Your task to perform on an android device: add a contact Image 0: 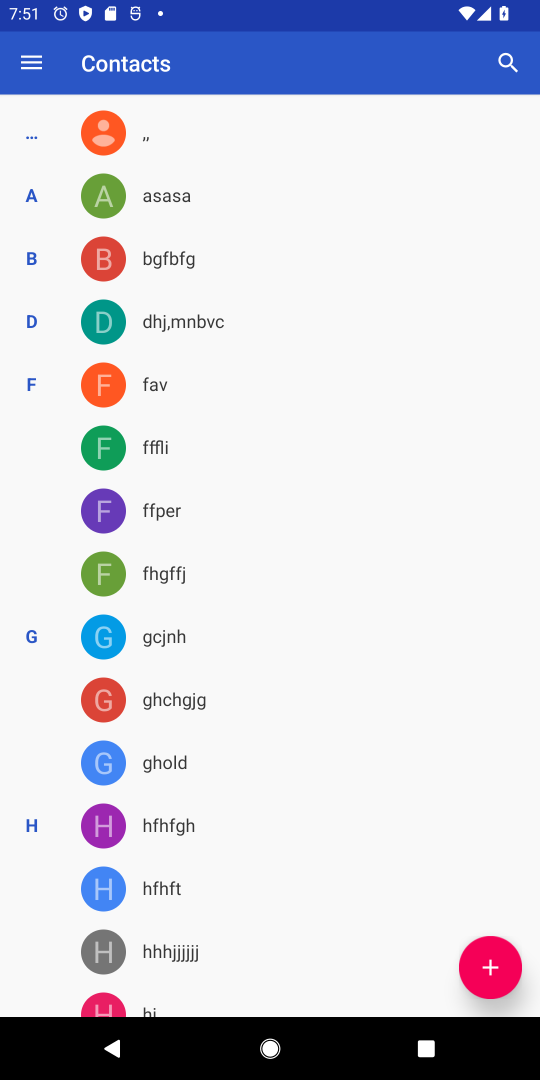
Step 0: click (482, 970)
Your task to perform on an android device: add a contact Image 1: 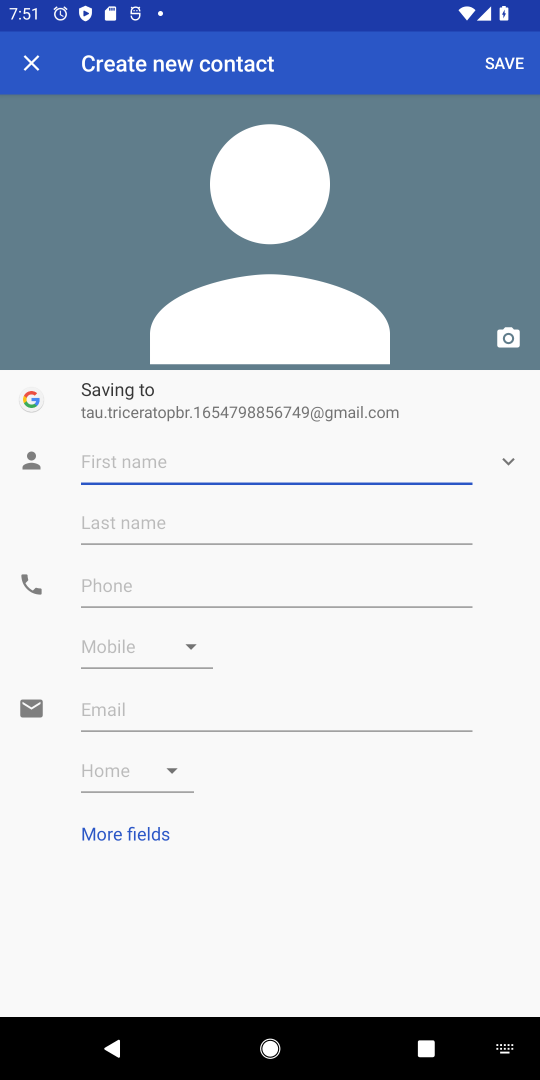
Step 1: click (105, 446)
Your task to perform on an android device: add a contact Image 2: 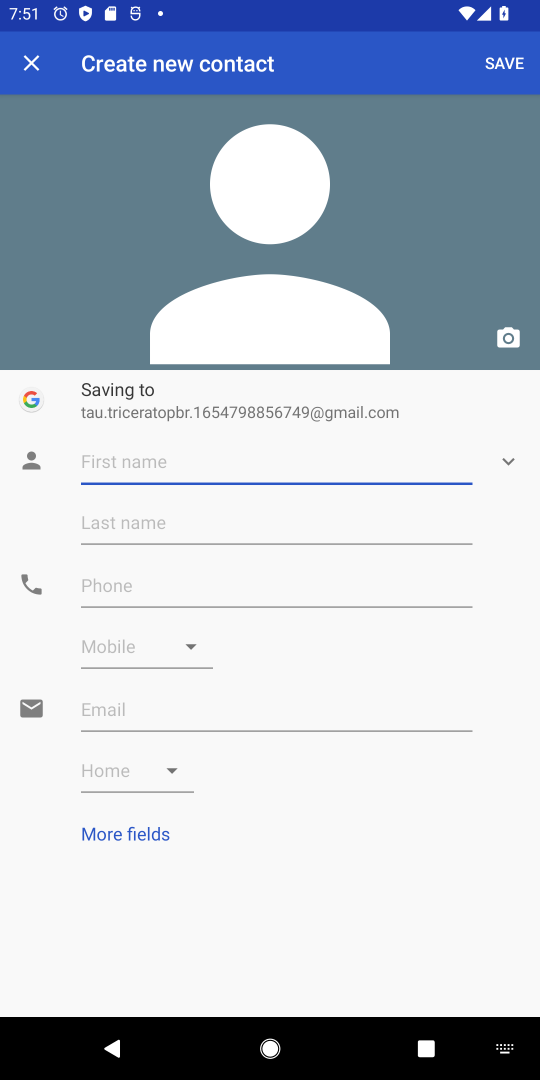
Step 2: type "gbfgn"
Your task to perform on an android device: add a contact Image 3: 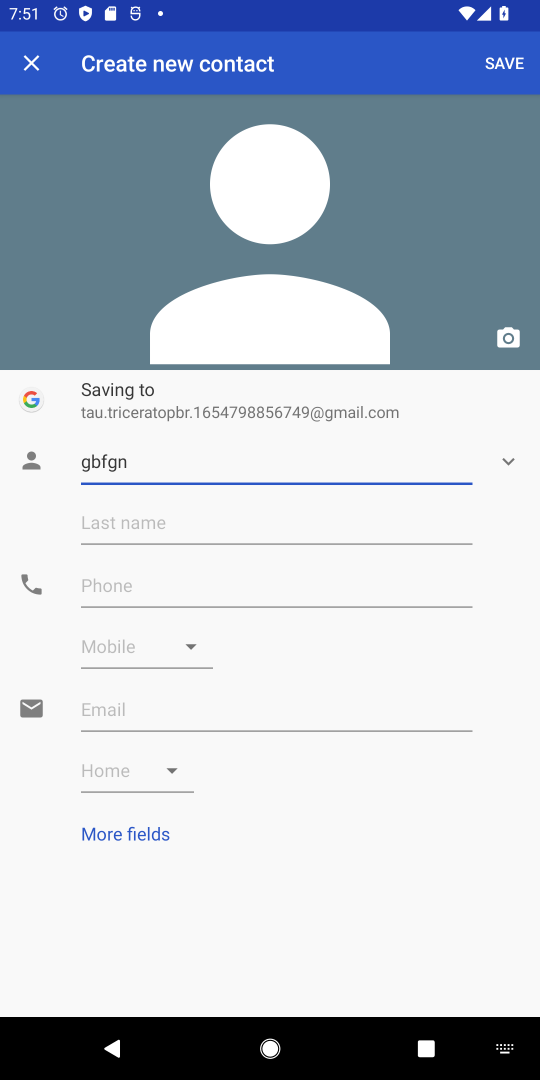
Step 3: click (186, 586)
Your task to perform on an android device: add a contact Image 4: 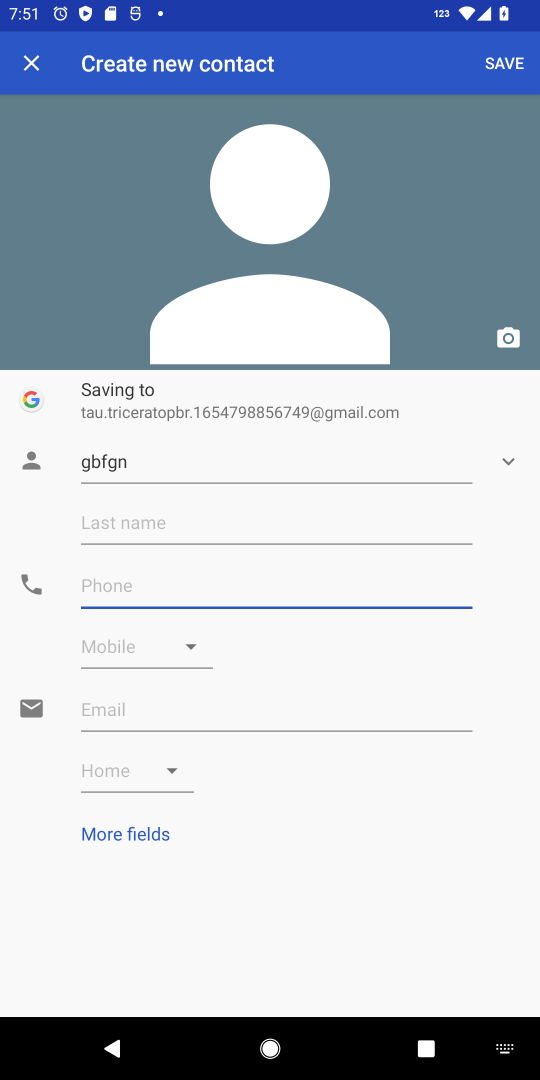
Step 4: type "564567"
Your task to perform on an android device: add a contact Image 5: 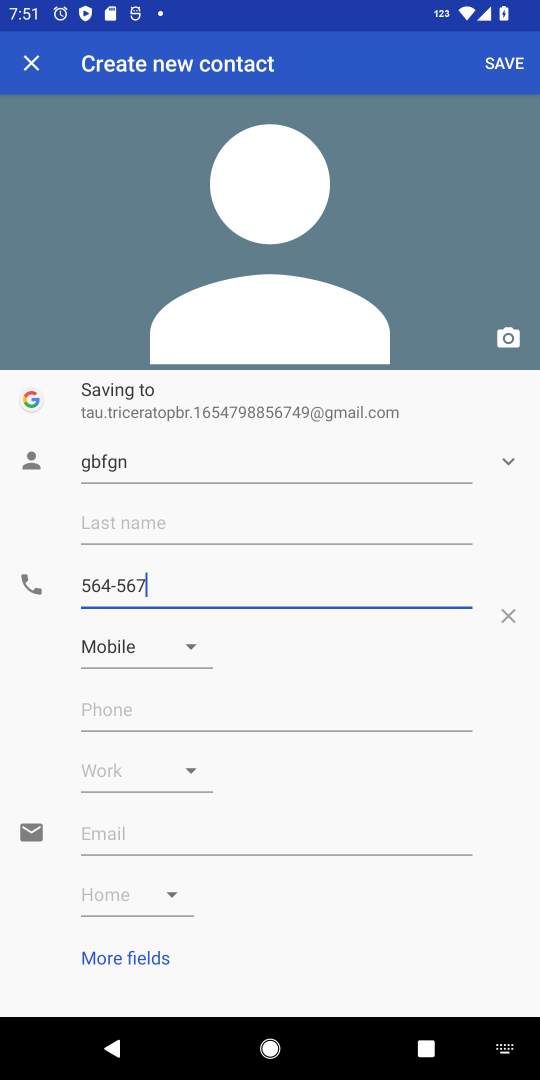
Step 5: click (498, 59)
Your task to perform on an android device: add a contact Image 6: 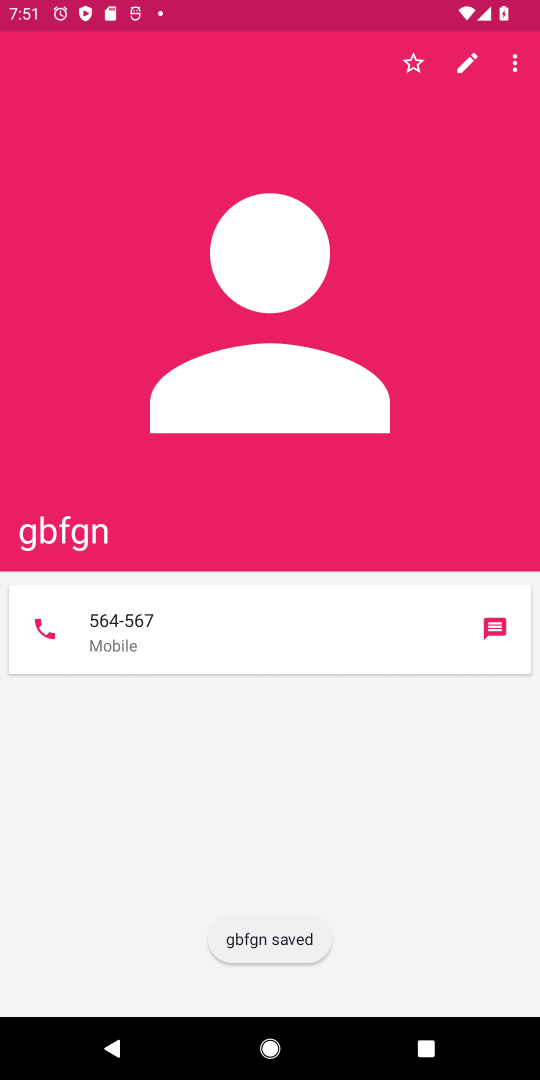
Step 6: task complete